Your task to perform on an android device: Play the last video I watched on Youtube Image 0: 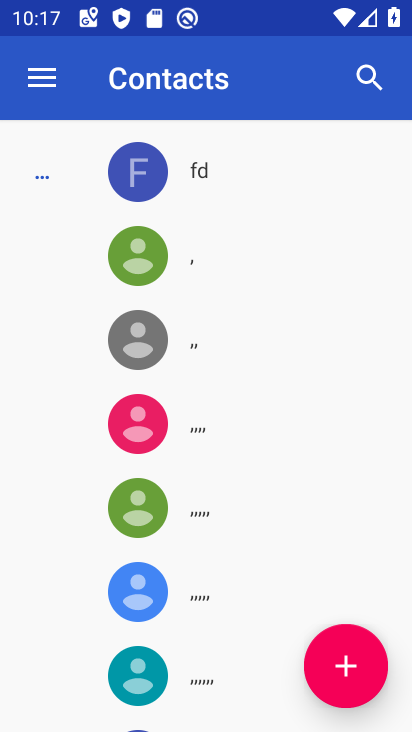
Step 0: press home button
Your task to perform on an android device: Play the last video I watched on Youtube Image 1: 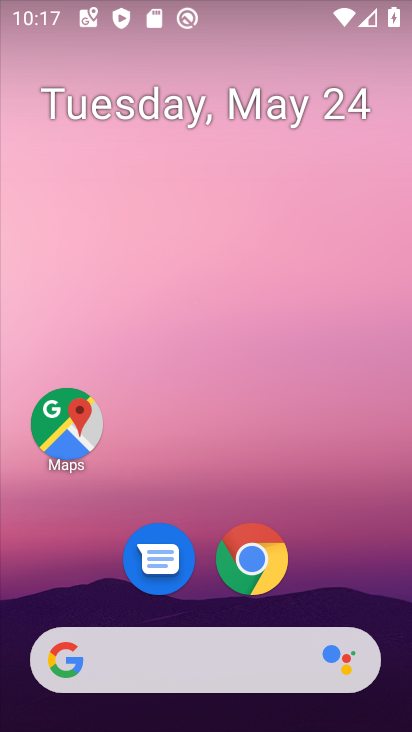
Step 1: drag from (183, 566) to (243, 170)
Your task to perform on an android device: Play the last video I watched on Youtube Image 2: 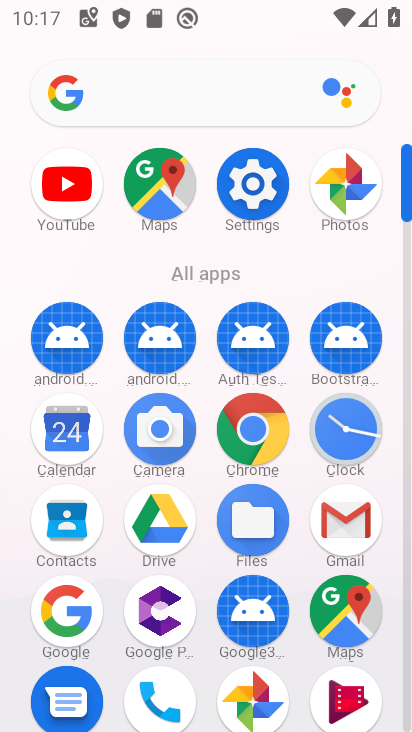
Step 2: click (68, 188)
Your task to perform on an android device: Play the last video I watched on Youtube Image 3: 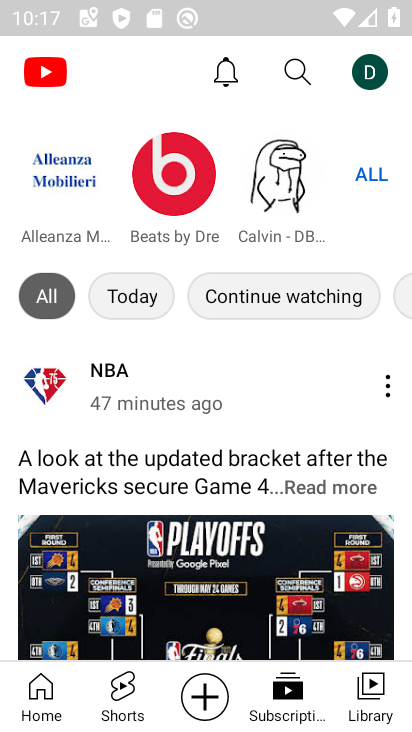
Step 3: click (358, 690)
Your task to perform on an android device: Play the last video I watched on Youtube Image 4: 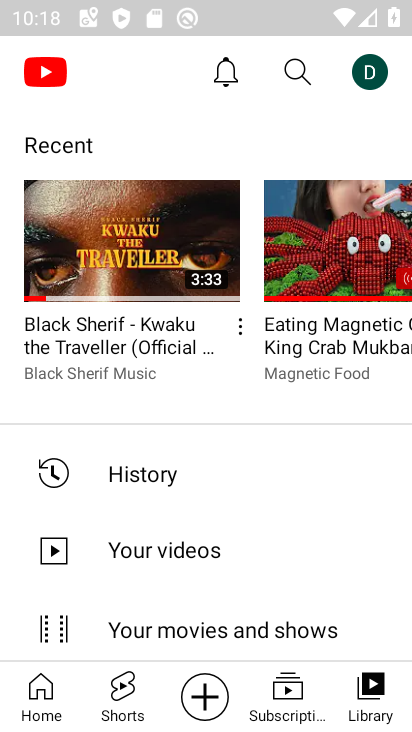
Step 4: click (119, 223)
Your task to perform on an android device: Play the last video I watched on Youtube Image 5: 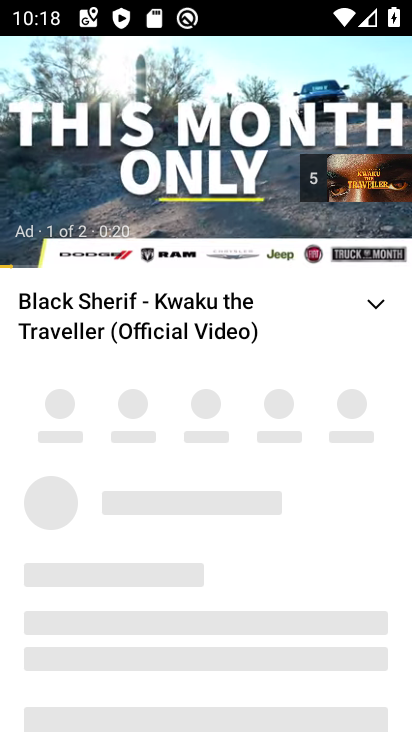
Step 5: click (186, 156)
Your task to perform on an android device: Play the last video I watched on Youtube Image 6: 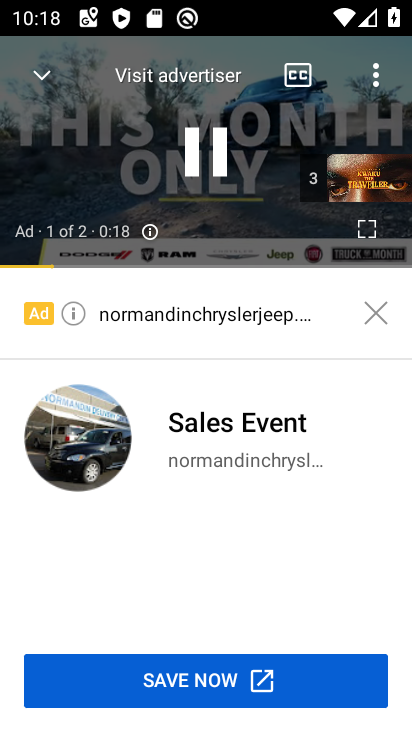
Step 6: click (186, 156)
Your task to perform on an android device: Play the last video I watched on Youtube Image 7: 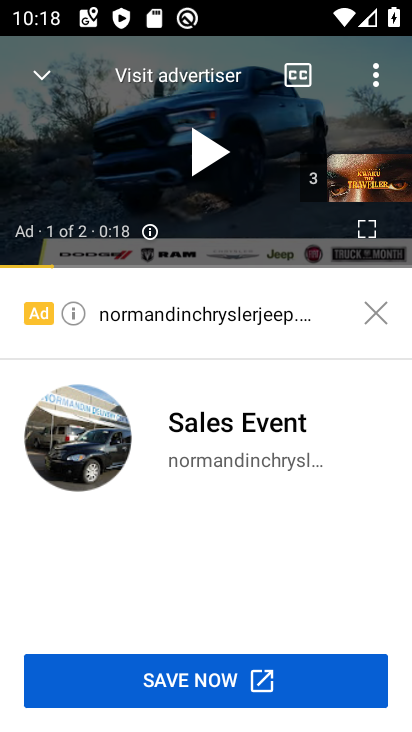
Step 7: task complete